Your task to perform on an android device: Go to network settings Image 0: 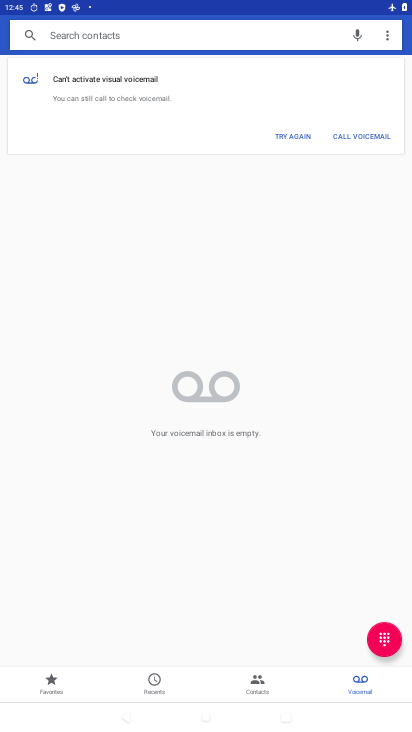
Step 0: press home button
Your task to perform on an android device: Go to network settings Image 1: 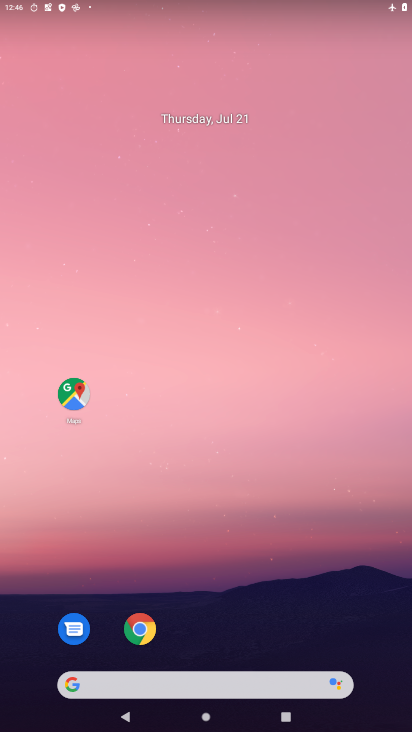
Step 1: drag from (134, 670) to (61, 124)
Your task to perform on an android device: Go to network settings Image 2: 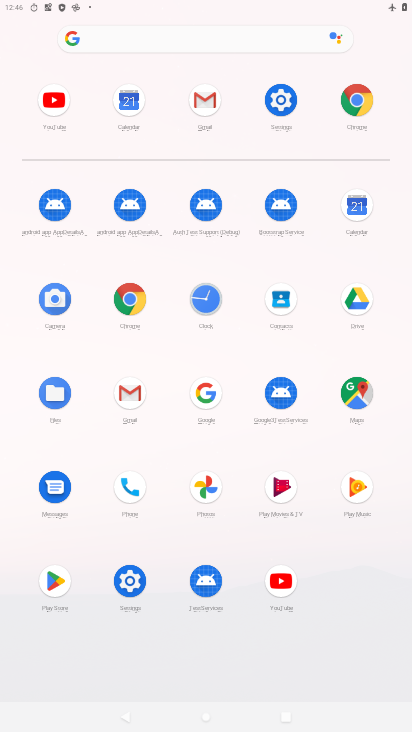
Step 2: click (287, 99)
Your task to perform on an android device: Go to network settings Image 3: 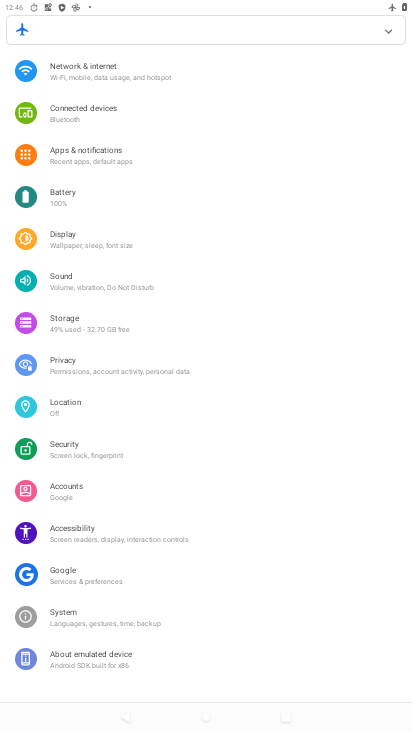
Step 3: click (96, 78)
Your task to perform on an android device: Go to network settings Image 4: 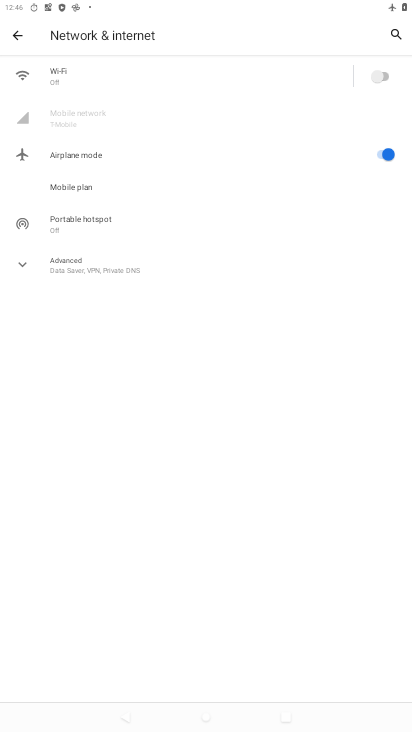
Step 4: task complete